Your task to perform on an android device: create a new album in the google photos Image 0: 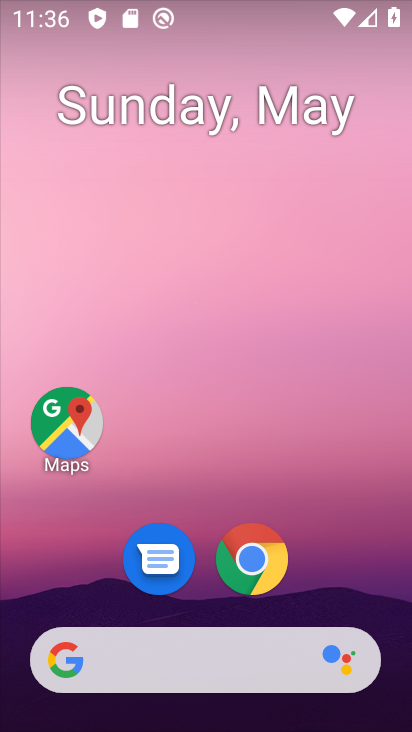
Step 0: drag from (255, 718) to (226, 8)
Your task to perform on an android device: create a new album in the google photos Image 1: 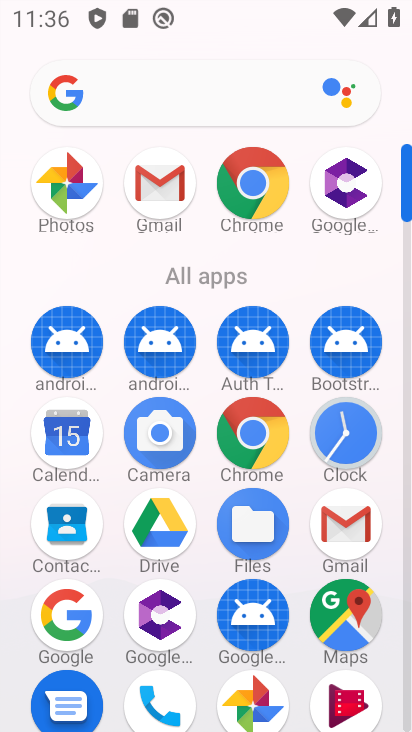
Step 1: click (105, 233)
Your task to perform on an android device: create a new album in the google photos Image 2: 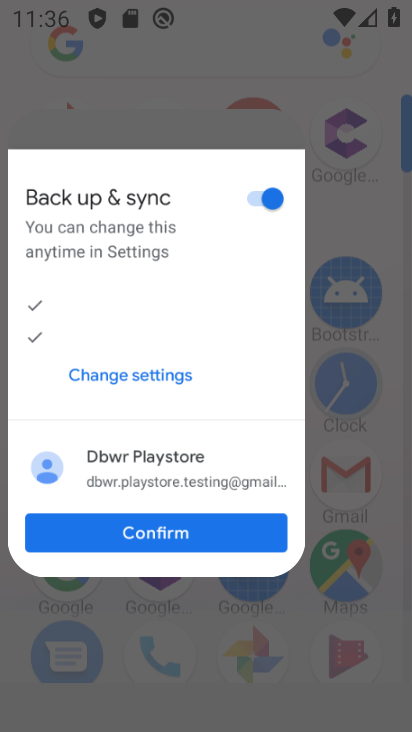
Step 2: click (82, 199)
Your task to perform on an android device: create a new album in the google photos Image 3: 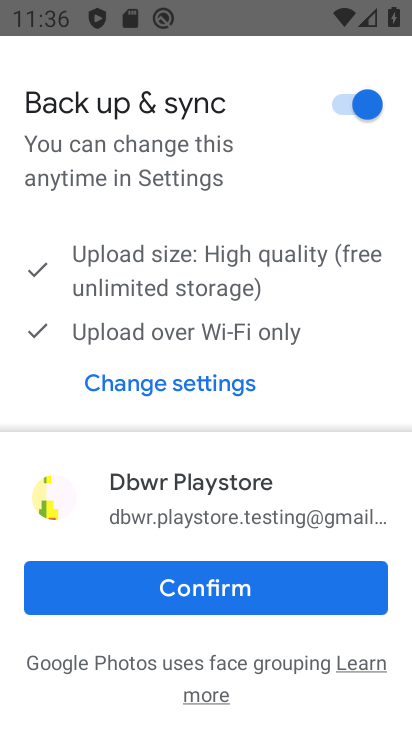
Step 3: click (252, 602)
Your task to perform on an android device: create a new album in the google photos Image 4: 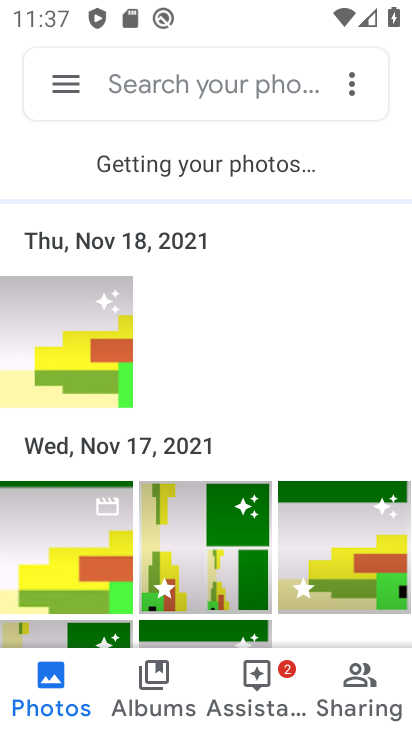
Step 4: click (76, 314)
Your task to perform on an android device: create a new album in the google photos Image 5: 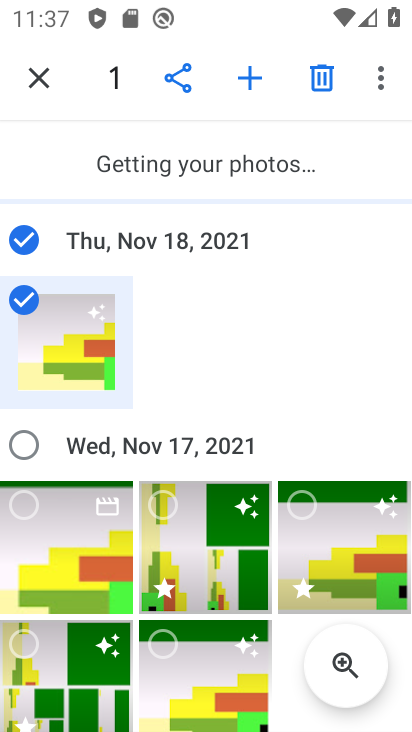
Step 5: click (263, 73)
Your task to perform on an android device: create a new album in the google photos Image 6: 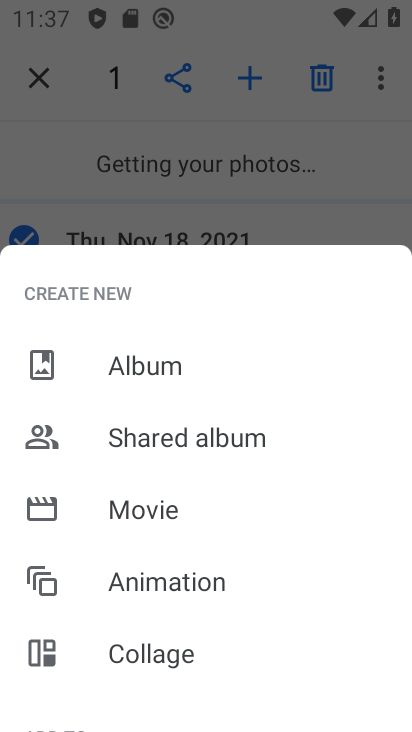
Step 6: click (151, 352)
Your task to perform on an android device: create a new album in the google photos Image 7: 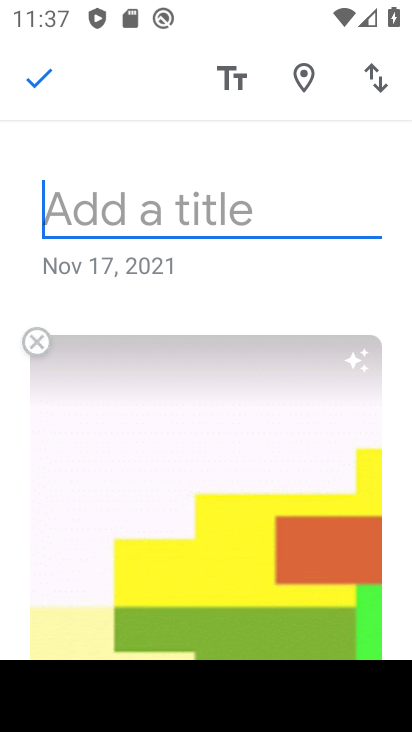
Step 7: type "jhgfk"
Your task to perform on an android device: create a new album in the google photos Image 8: 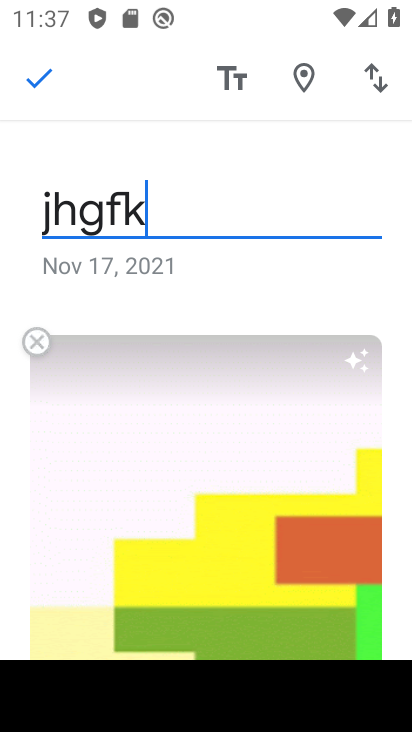
Step 8: click (36, 79)
Your task to perform on an android device: create a new album in the google photos Image 9: 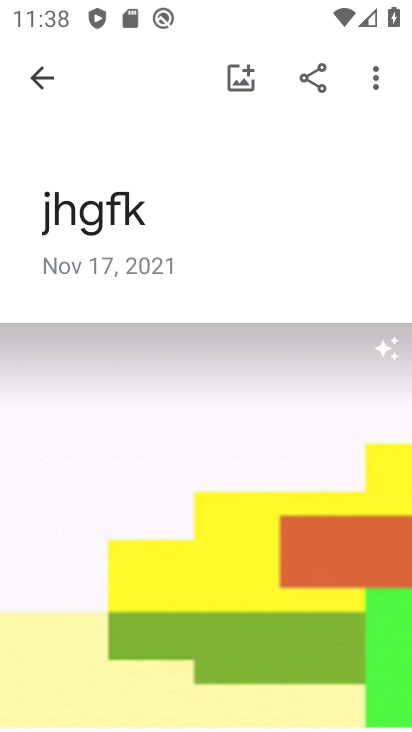
Step 9: task complete